Your task to perform on an android device: delete browsing data in the chrome app Image 0: 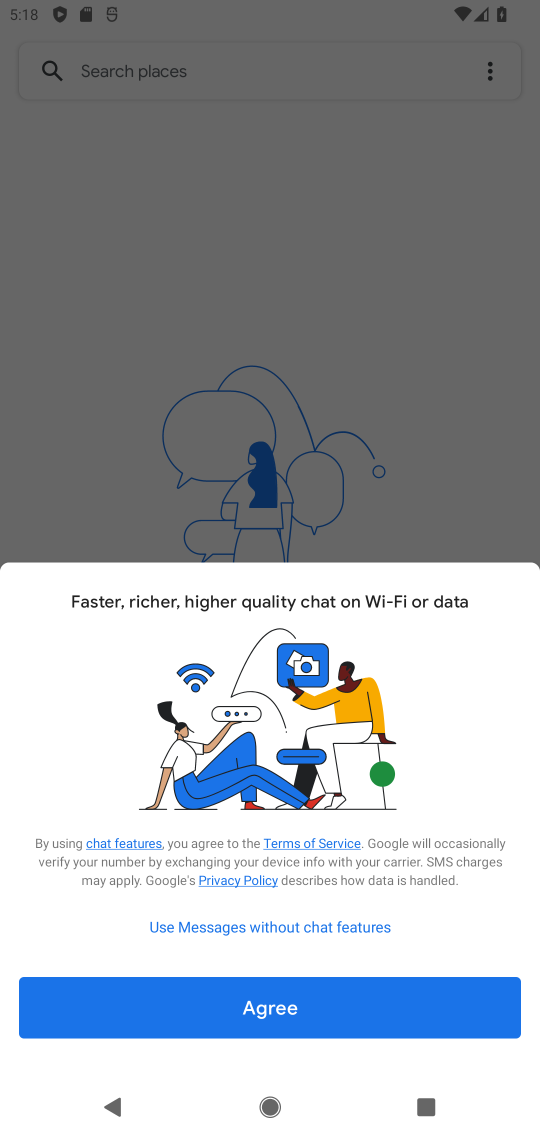
Step 0: press home button
Your task to perform on an android device: delete browsing data in the chrome app Image 1: 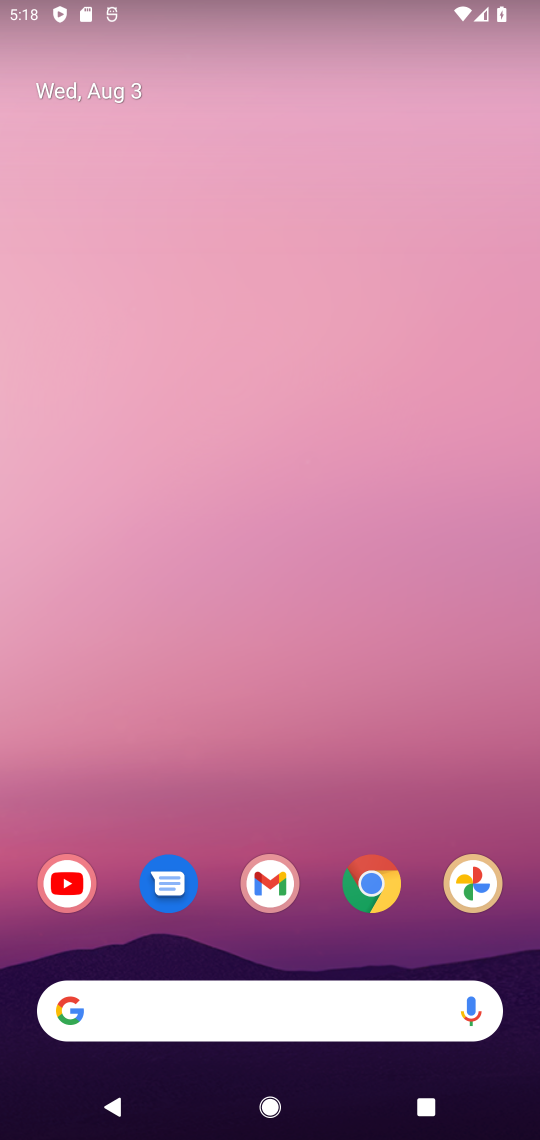
Step 1: drag from (291, 981) to (293, 327)
Your task to perform on an android device: delete browsing data in the chrome app Image 2: 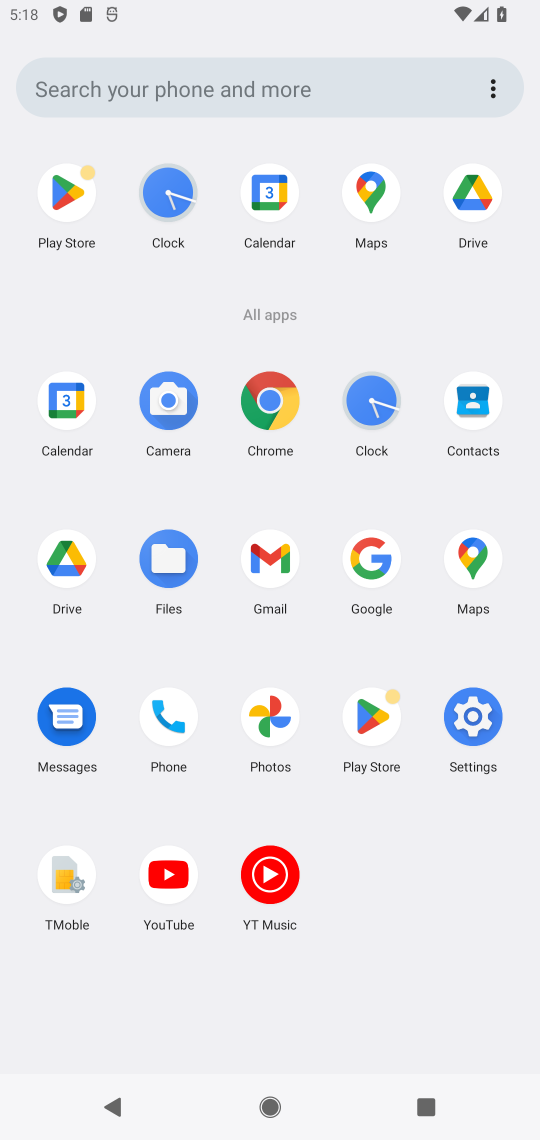
Step 2: click (279, 400)
Your task to perform on an android device: delete browsing data in the chrome app Image 3: 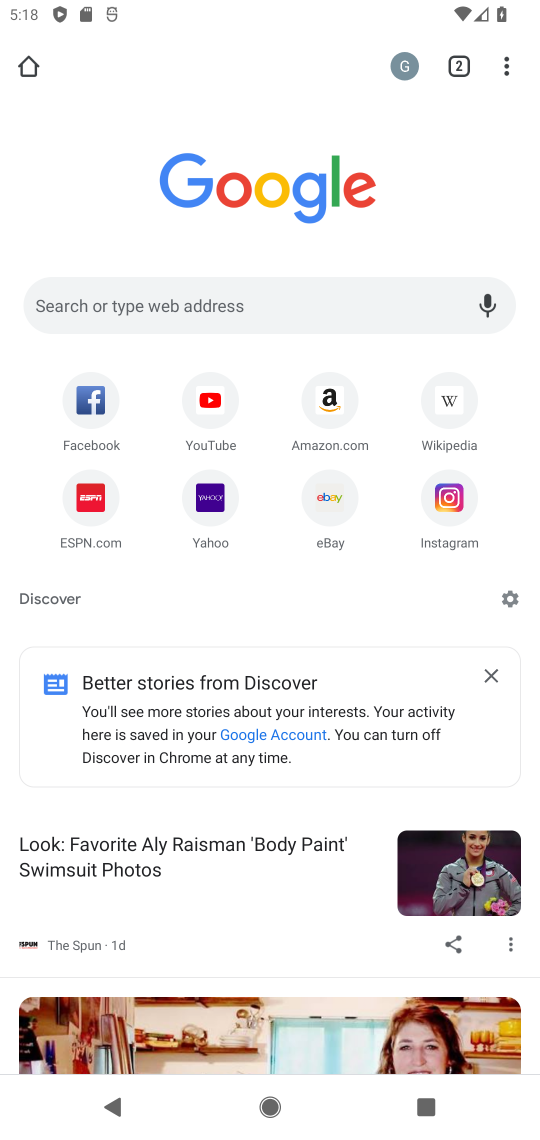
Step 3: click (507, 64)
Your task to perform on an android device: delete browsing data in the chrome app Image 4: 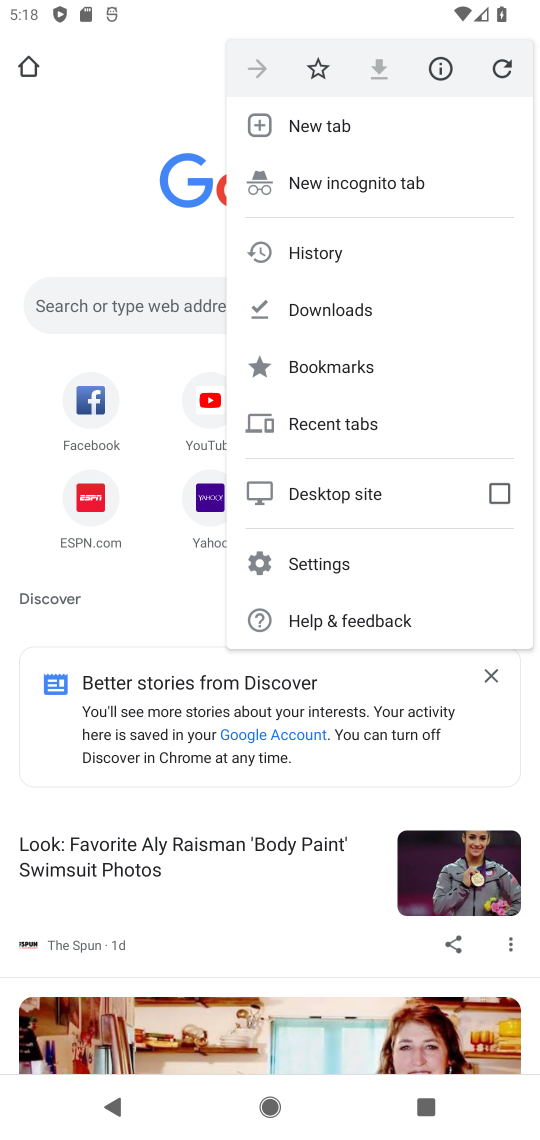
Step 4: click (325, 562)
Your task to perform on an android device: delete browsing data in the chrome app Image 5: 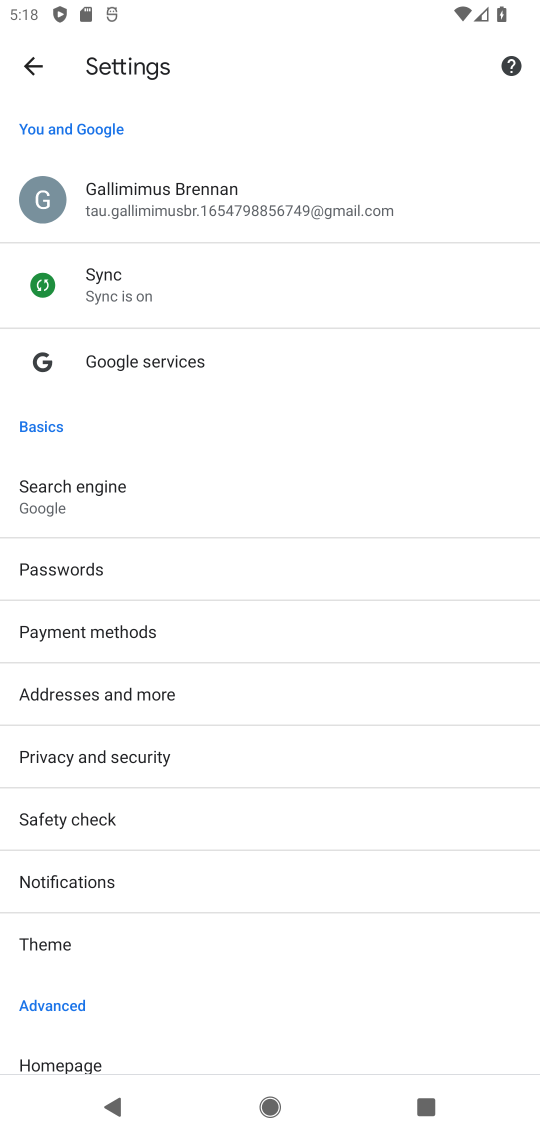
Step 5: drag from (107, 985) to (206, 388)
Your task to perform on an android device: delete browsing data in the chrome app Image 6: 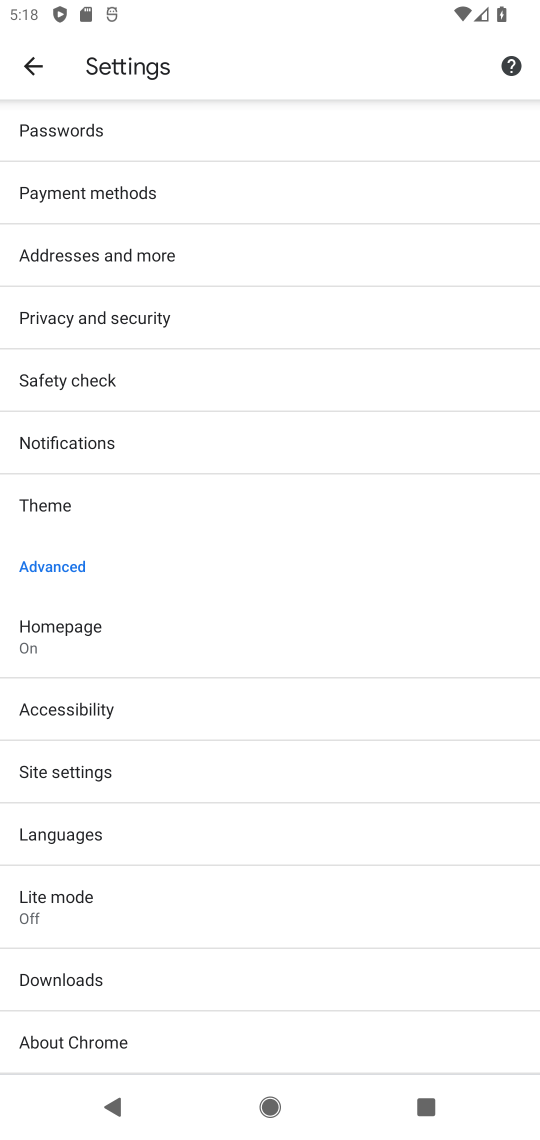
Step 6: drag from (73, 1007) to (94, 560)
Your task to perform on an android device: delete browsing data in the chrome app Image 7: 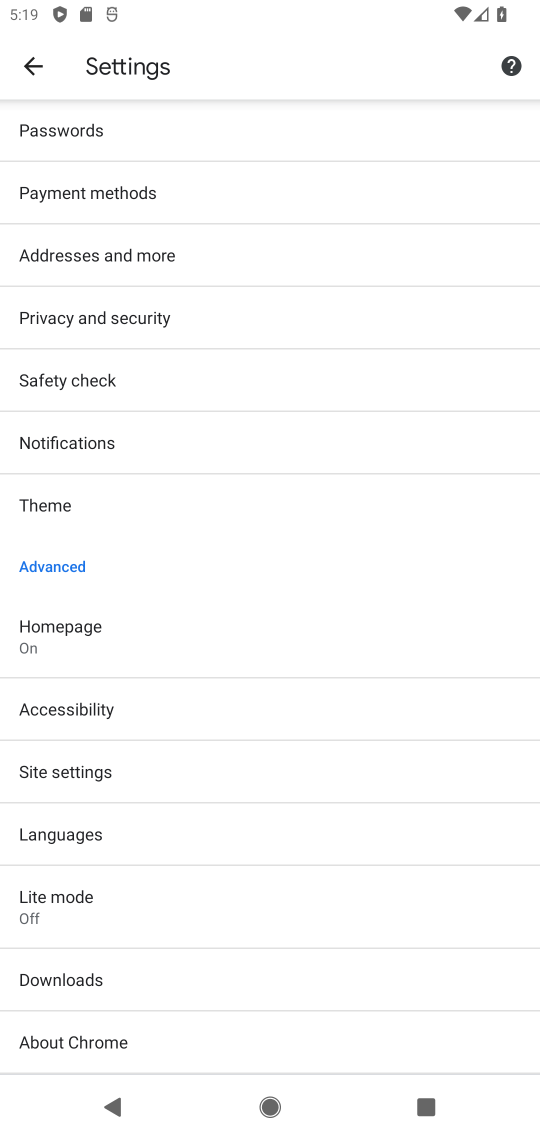
Step 7: drag from (166, 383) to (163, 862)
Your task to perform on an android device: delete browsing data in the chrome app Image 8: 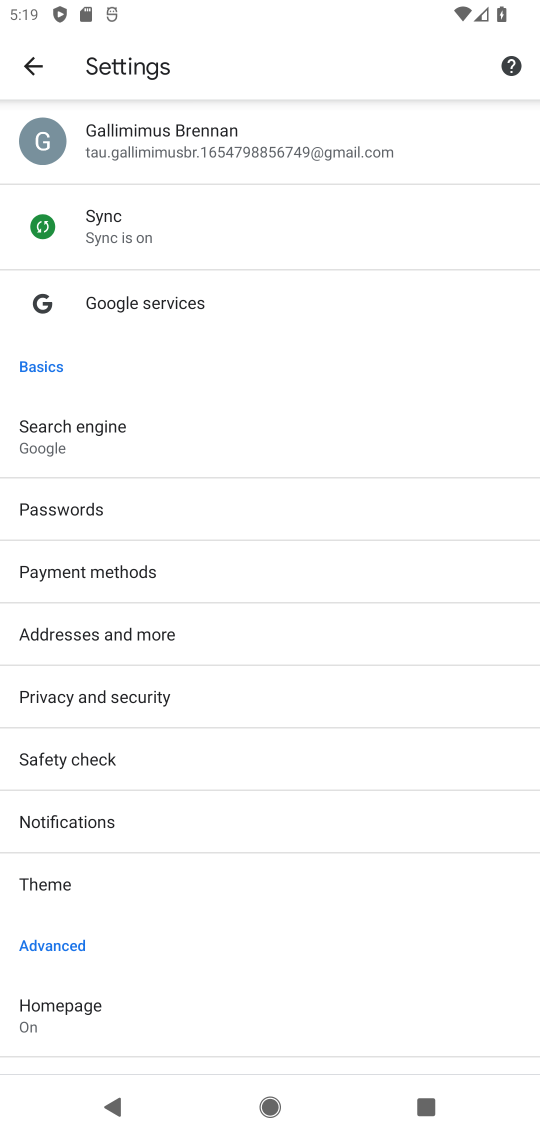
Step 8: click (81, 692)
Your task to perform on an android device: delete browsing data in the chrome app Image 9: 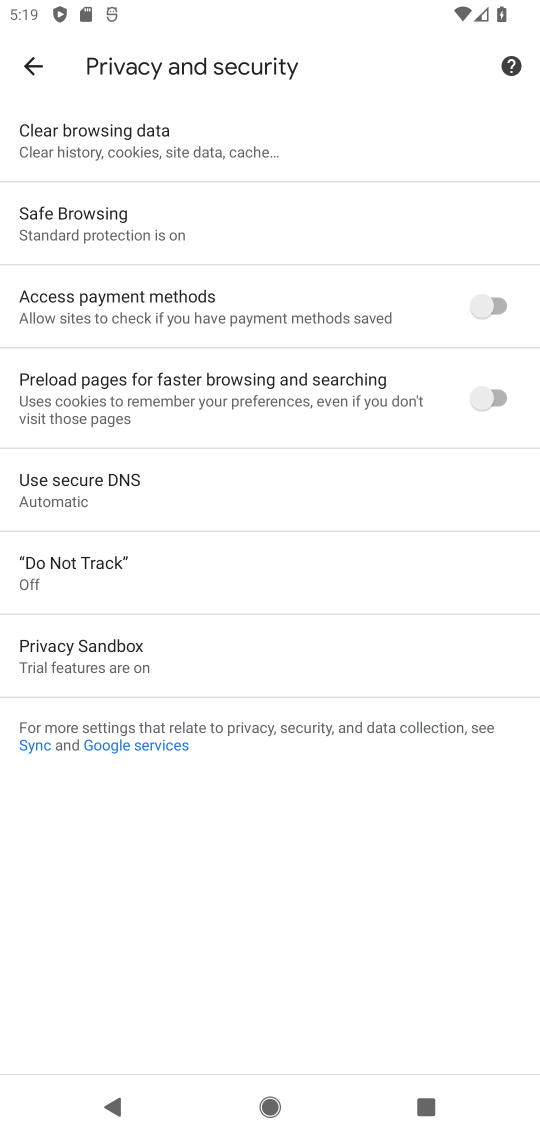
Step 9: click (134, 156)
Your task to perform on an android device: delete browsing data in the chrome app Image 10: 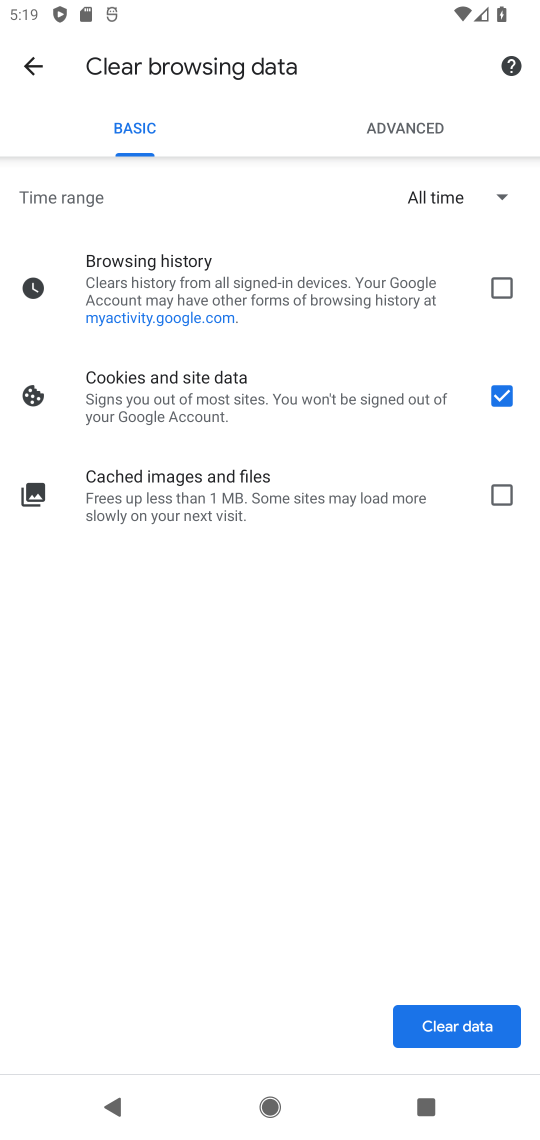
Step 10: click (500, 490)
Your task to perform on an android device: delete browsing data in the chrome app Image 11: 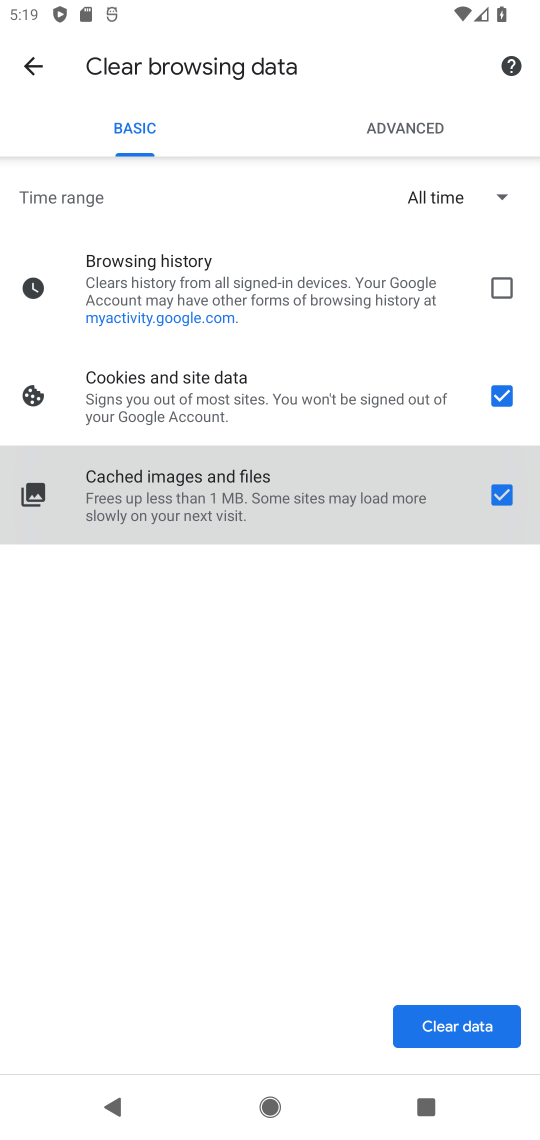
Step 11: click (498, 288)
Your task to perform on an android device: delete browsing data in the chrome app Image 12: 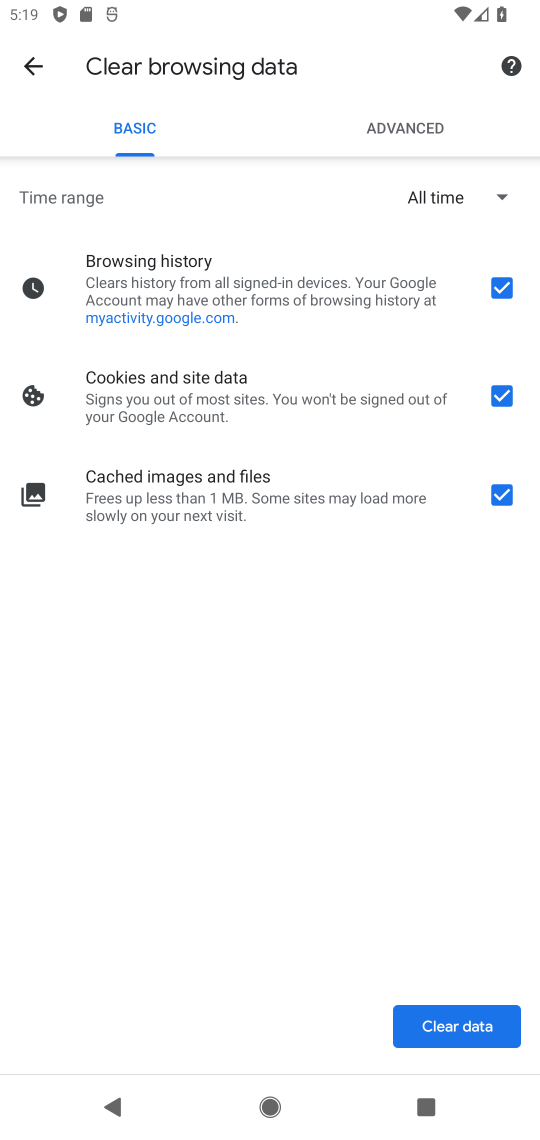
Step 12: click (453, 1021)
Your task to perform on an android device: delete browsing data in the chrome app Image 13: 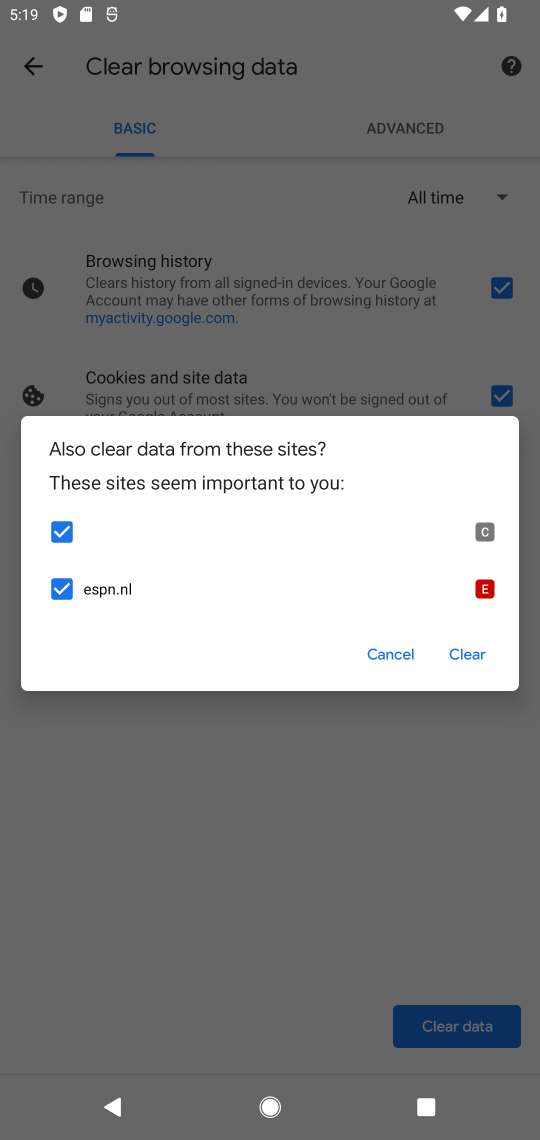
Step 13: click (459, 648)
Your task to perform on an android device: delete browsing data in the chrome app Image 14: 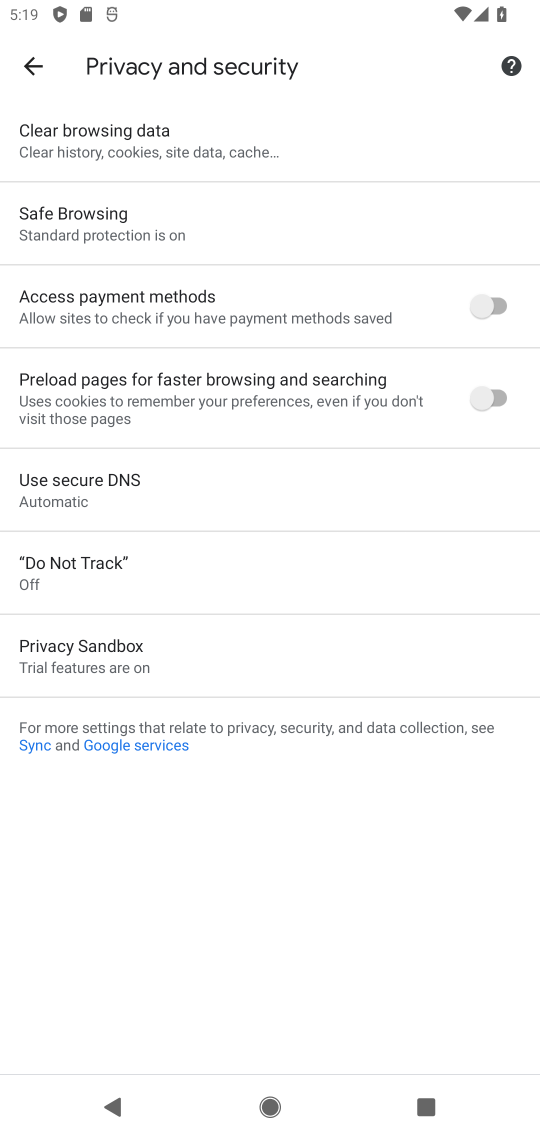
Step 14: task complete